Your task to perform on an android device: Open Google Chrome and click the shortcut for Amazon.com Image 0: 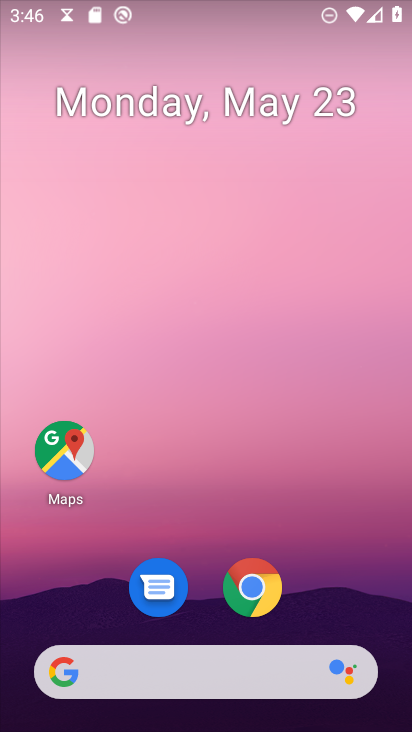
Step 0: click (257, 577)
Your task to perform on an android device: Open Google Chrome and click the shortcut for Amazon.com Image 1: 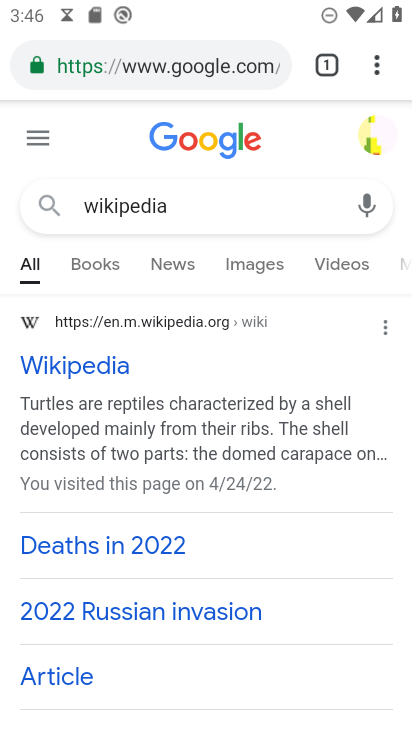
Step 1: click (376, 68)
Your task to perform on an android device: Open Google Chrome and click the shortcut for Amazon.com Image 2: 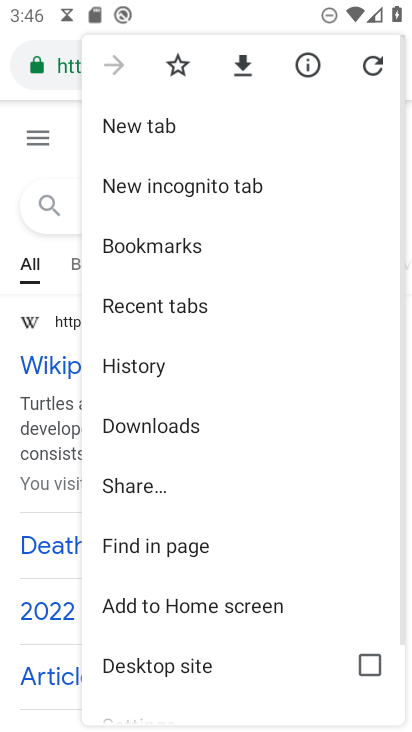
Step 2: click (156, 127)
Your task to perform on an android device: Open Google Chrome and click the shortcut for Amazon.com Image 3: 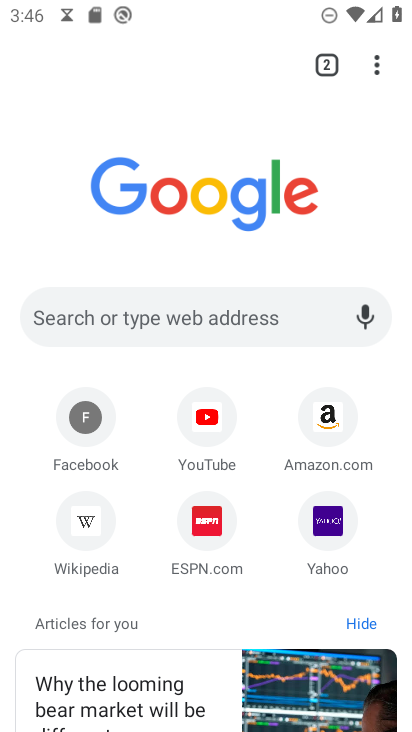
Step 3: click (335, 422)
Your task to perform on an android device: Open Google Chrome and click the shortcut for Amazon.com Image 4: 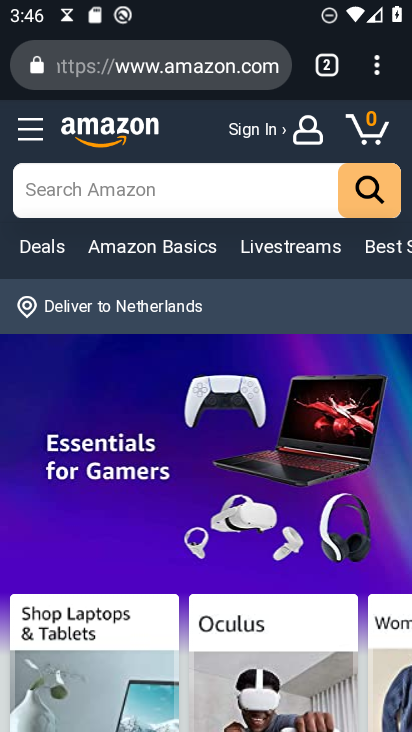
Step 4: task complete